Your task to perform on an android device: Open privacy settings Image 0: 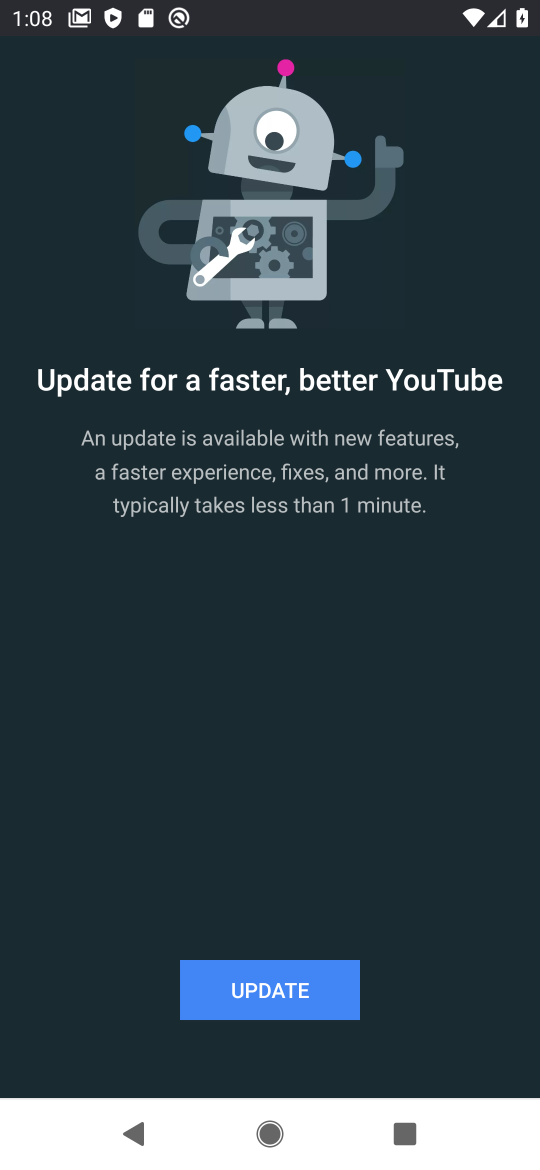
Step 0: press home button
Your task to perform on an android device: Open privacy settings Image 1: 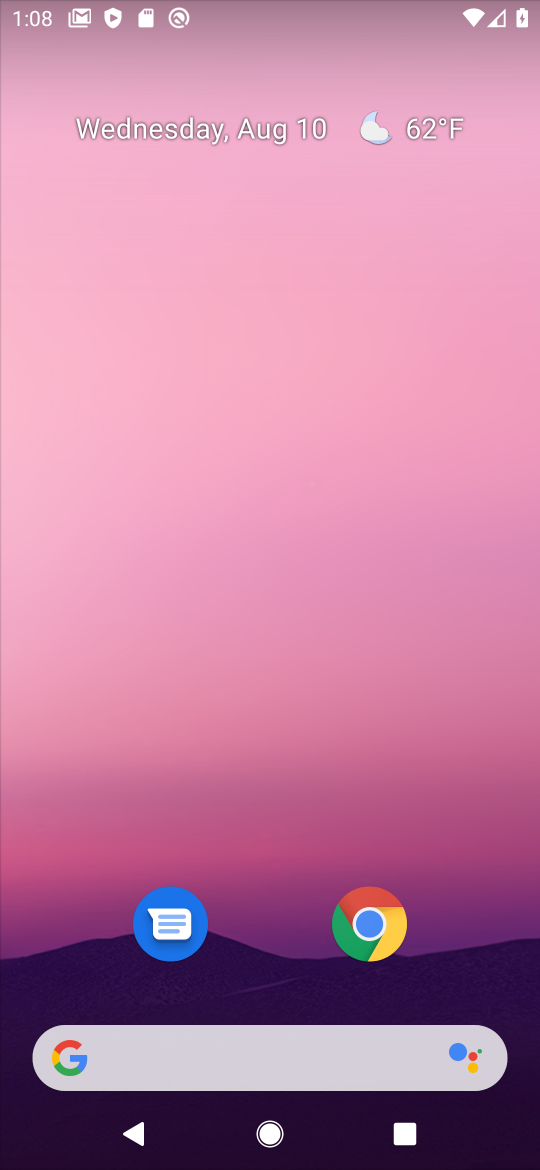
Step 1: drag from (296, 741) to (371, 23)
Your task to perform on an android device: Open privacy settings Image 2: 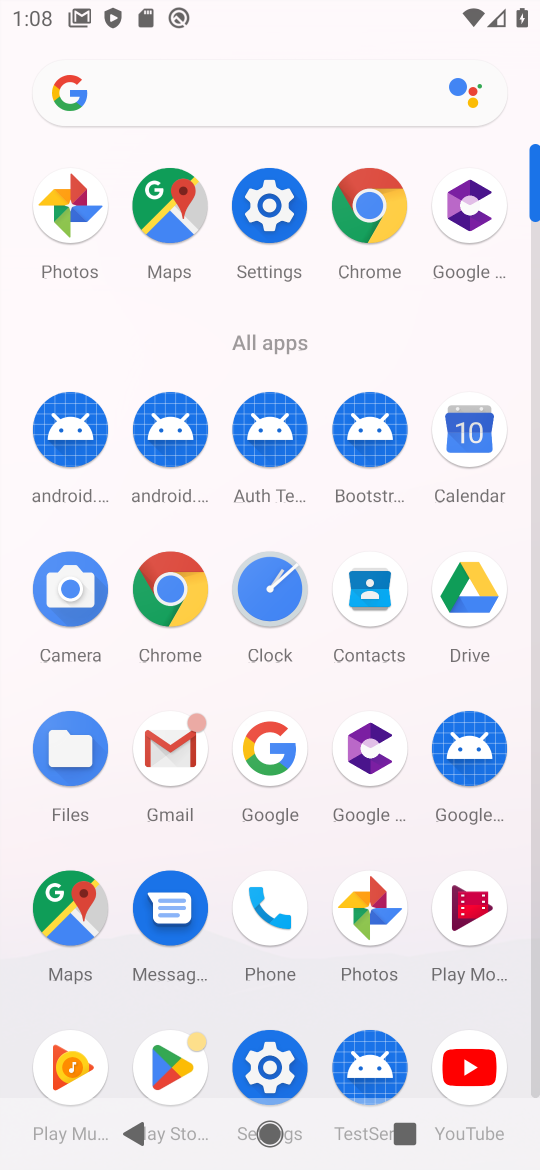
Step 2: click (273, 1070)
Your task to perform on an android device: Open privacy settings Image 3: 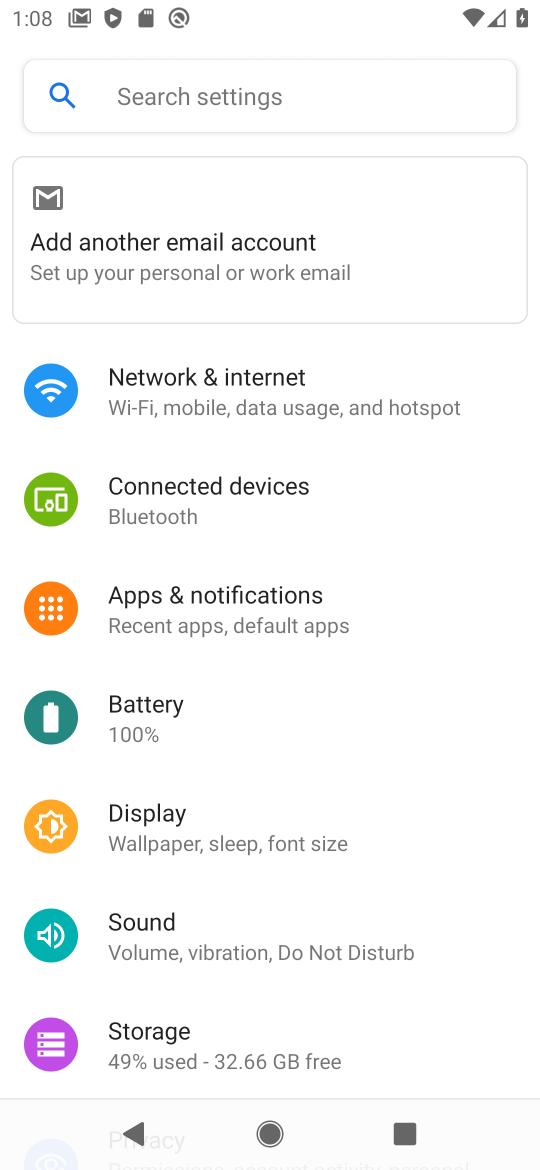
Step 3: drag from (286, 1001) to (324, 665)
Your task to perform on an android device: Open privacy settings Image 4: 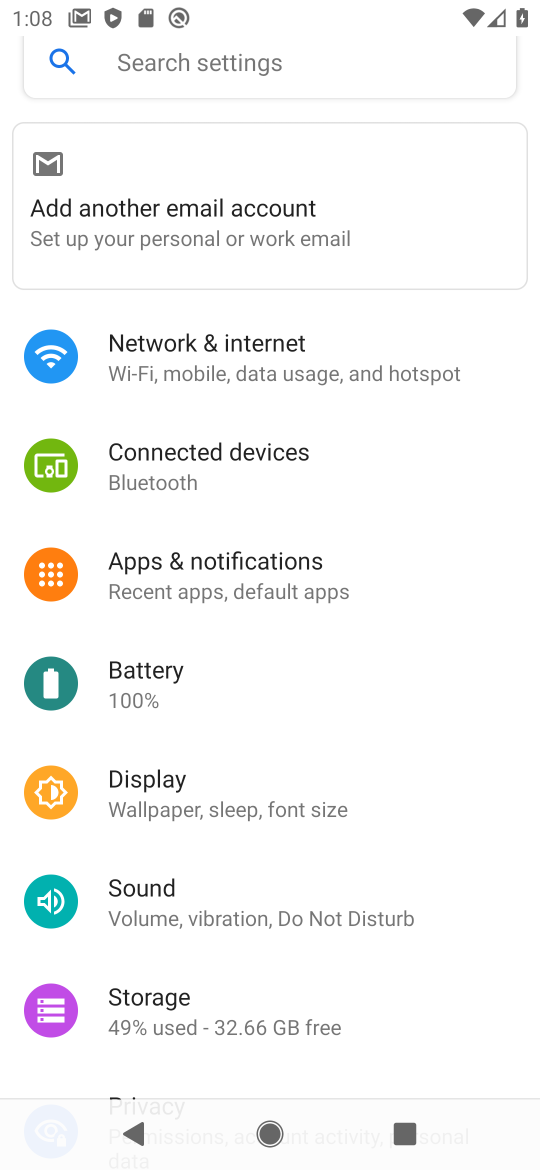
Step 4: drag from (313, 836) to (417, 244)
Your task to perform on an android device: Open privacy settings Image 5: 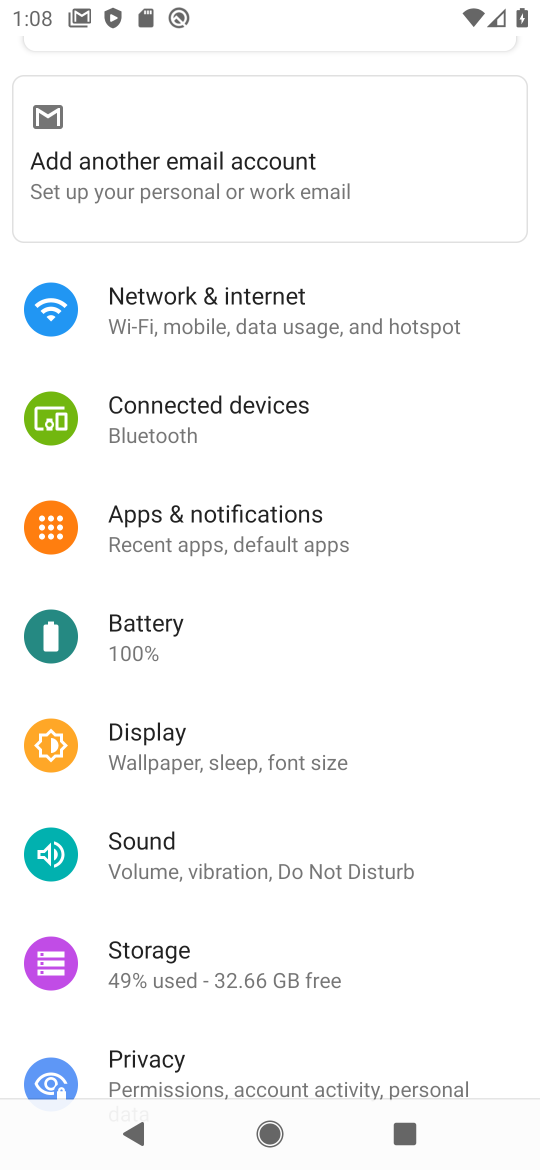
Step 5: click (178, 1077)
Your task to perform on an android device: Open privacy settings Image 6: 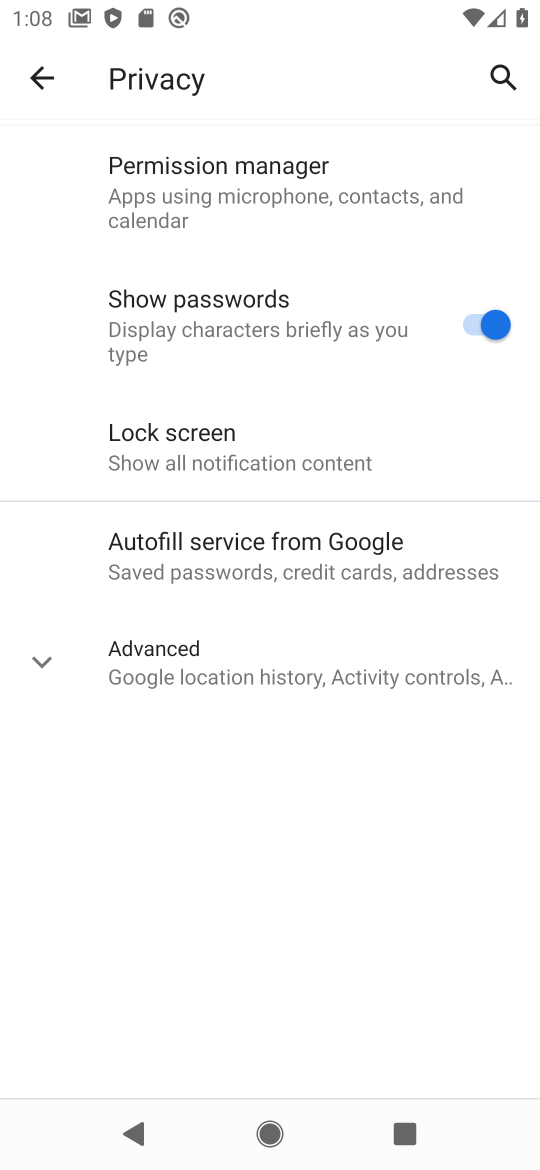
Step 6: task complete